Your task to perform on an android device: What's on the menu at Taco Bell? Image 0: 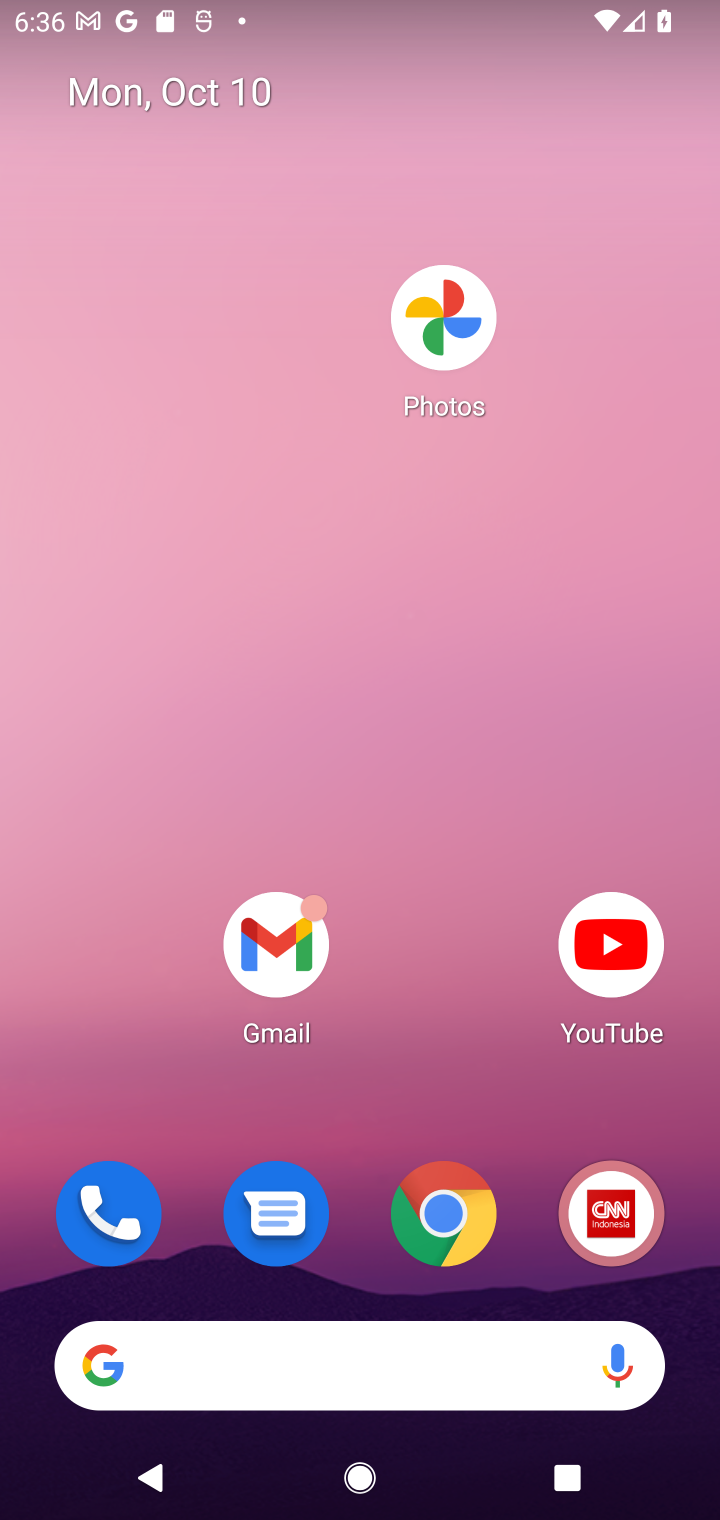
Step 0: click (411, 1369)
Your task to perform on an android device: What's on the menu at Taco Bell? Image 1: 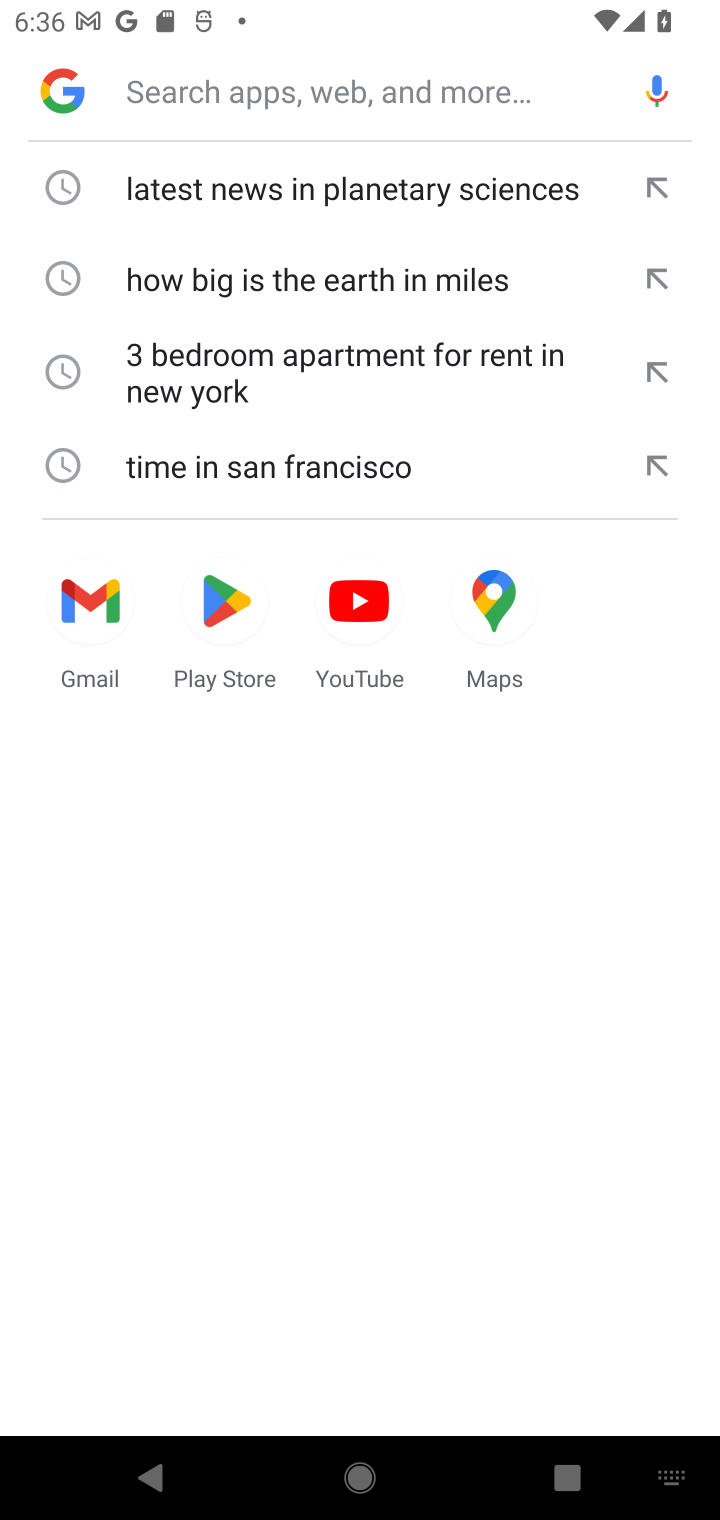
Step 1: type "What's on the menu at Taco Bell"
Your task to perform on an android device: What's on the menu at Taco Bell? Image 2: 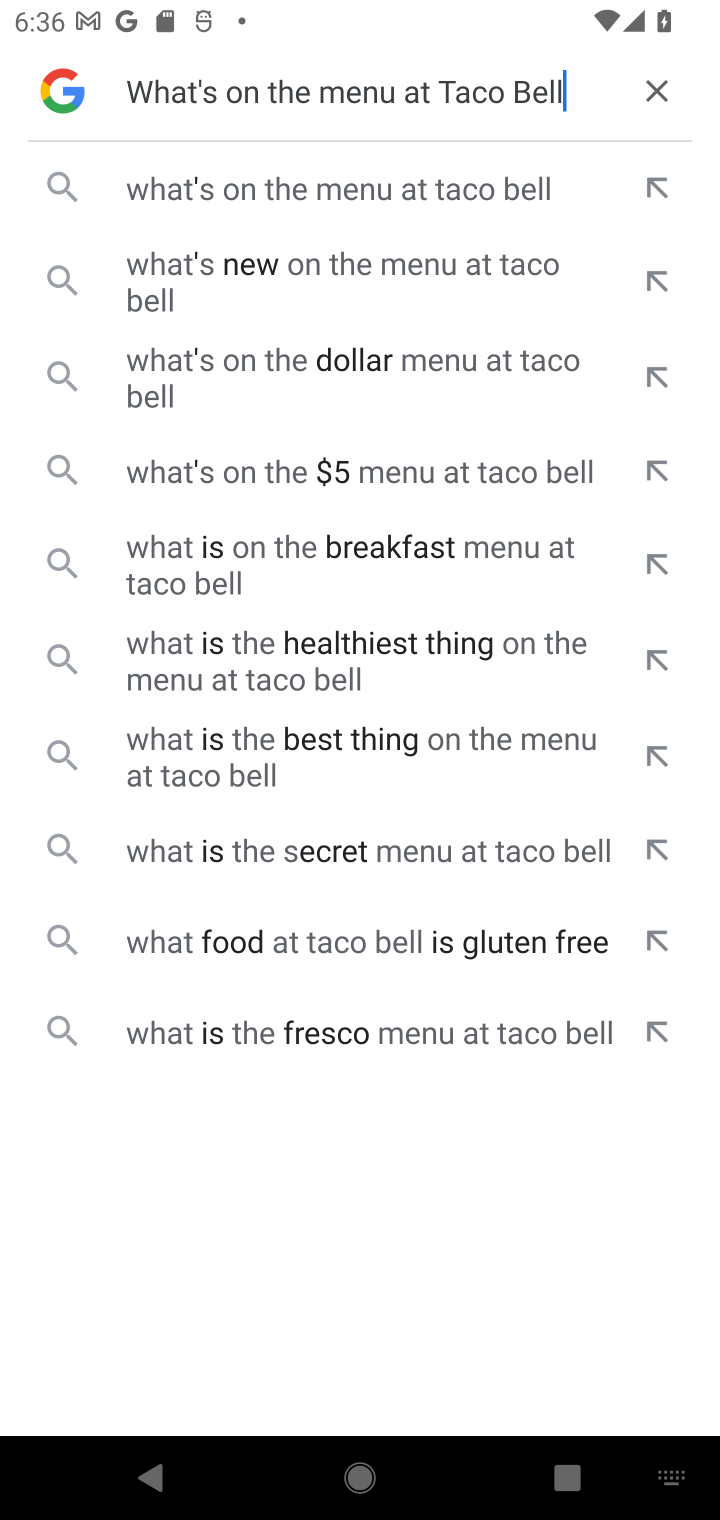
Step 2: click (447, 188)
Your task to perform on an android device: What's on the menu at Taco Bell? Image 3: 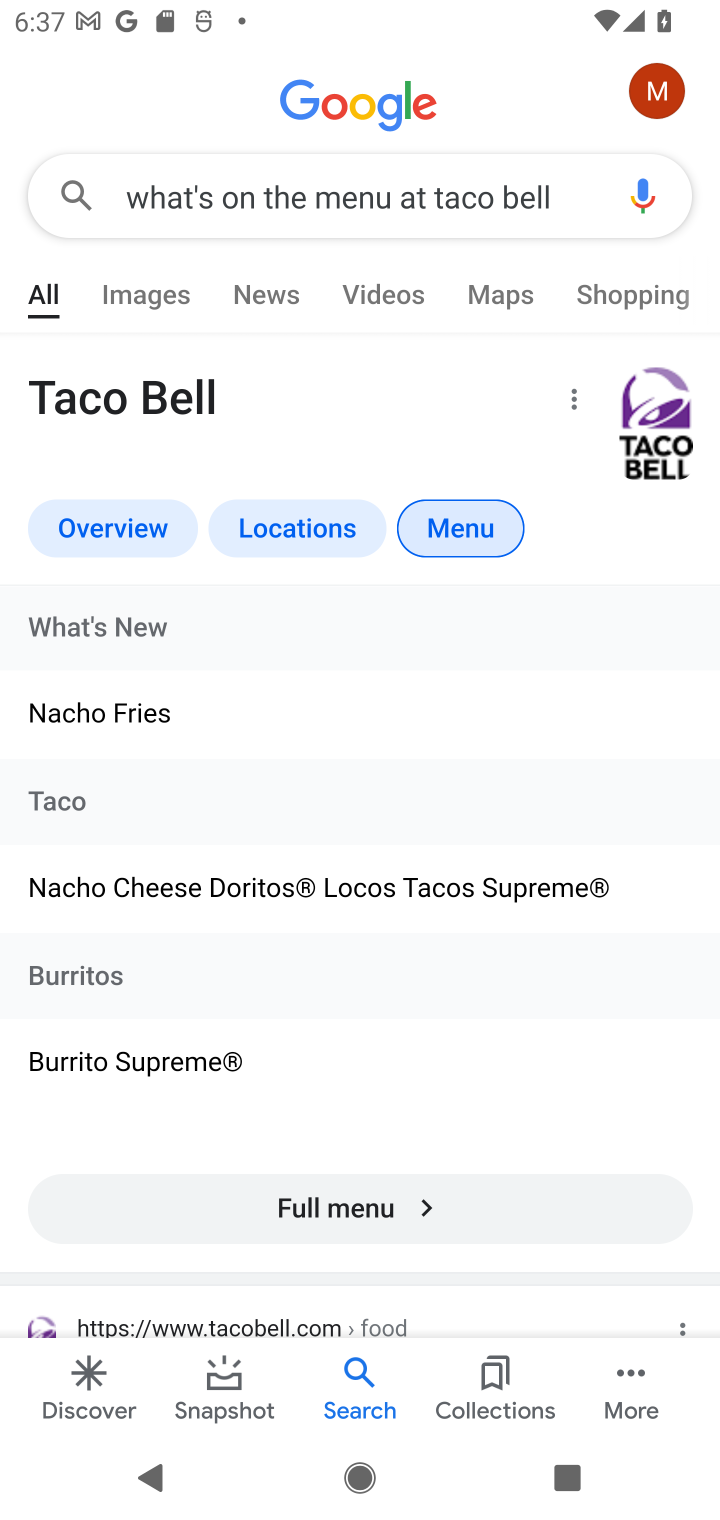
Step 3: task complete